Your task to perform on an android device: toggle airplane mode Image 0: 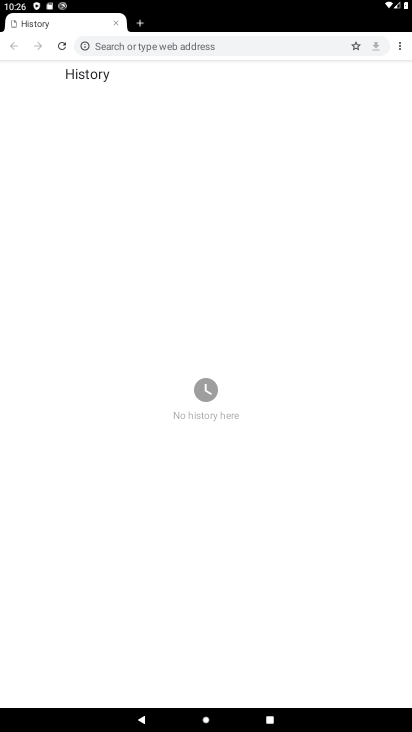
Step 0: press home button
Your task to perform on an android device: toggle airplane mode Image 1: 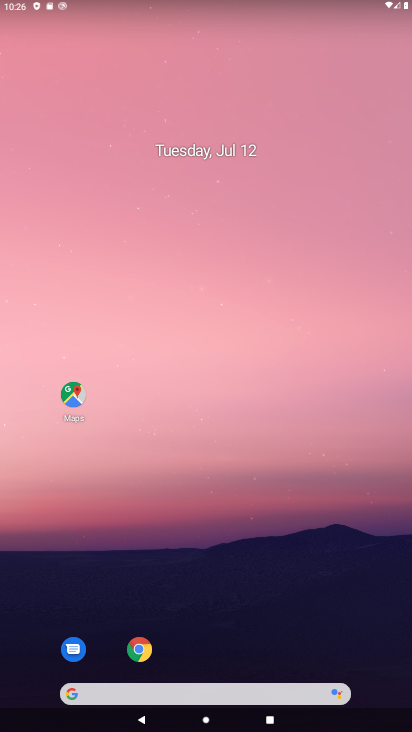
Step 1: drag from (379, 642) to (324, 155)
Your task to perform on an android device: toggle airplane mode Image 2: 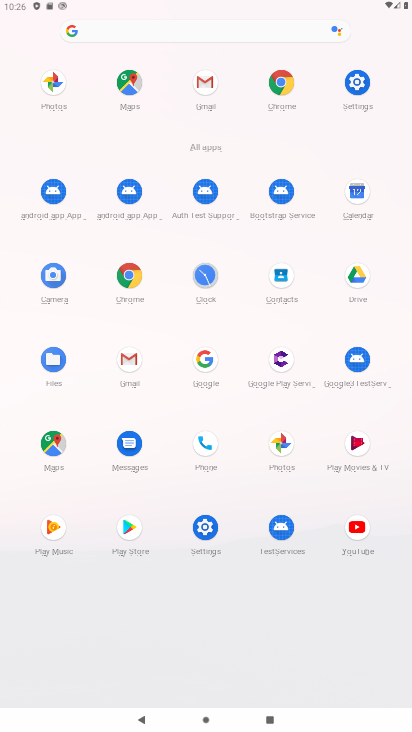
Step 2: click (205, 528)
Your task to perform on an android device: toggle airplane mode Image 3: 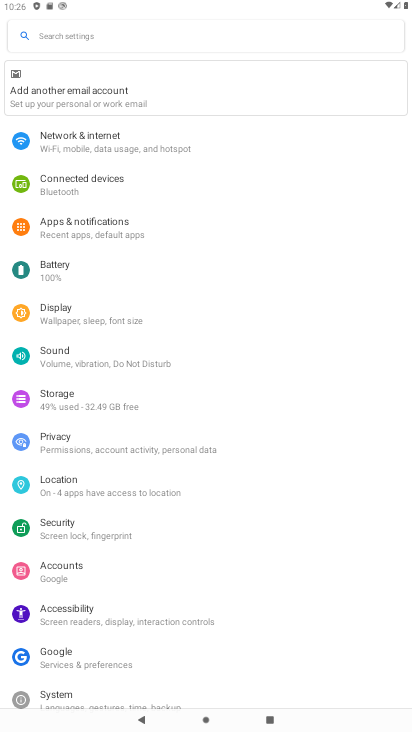
Step 3: click (70, 140)
Your task to perform on an android device: toggle airplane mode Image 4: 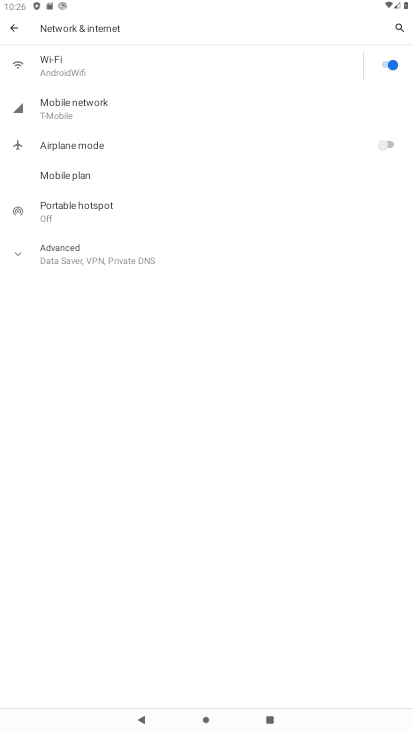
Step 4: click (389, 143)
Your task to perform on an android device: toggle airplane mode Image 5: 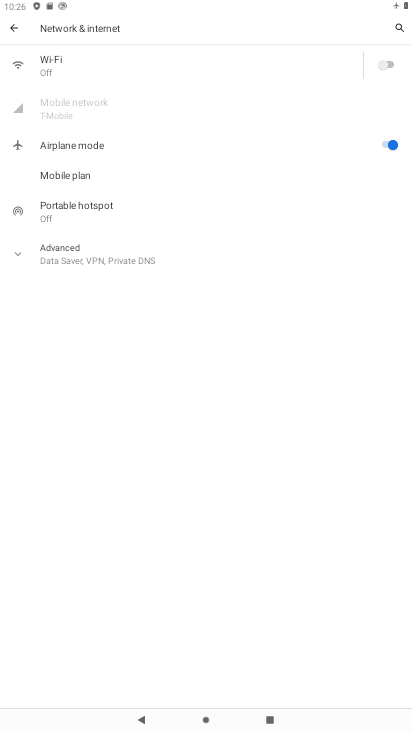
Step 5: task complete